Your task to perform on an android device: create a new album in the google photos Image 0: 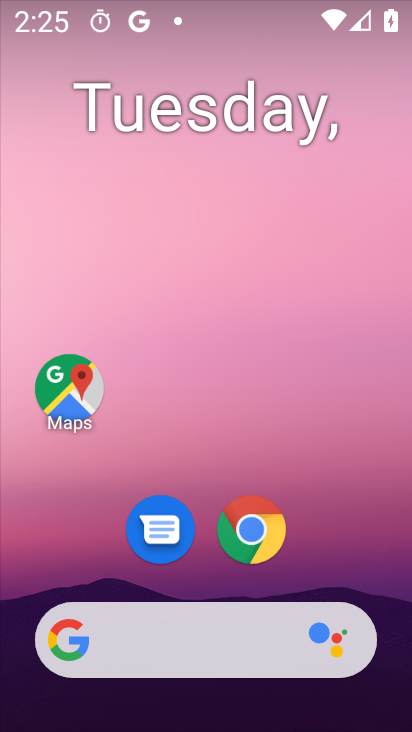
Step 0: click (373, 60)
Your task to perform on an android device: create a new album in the google photos Image 1: 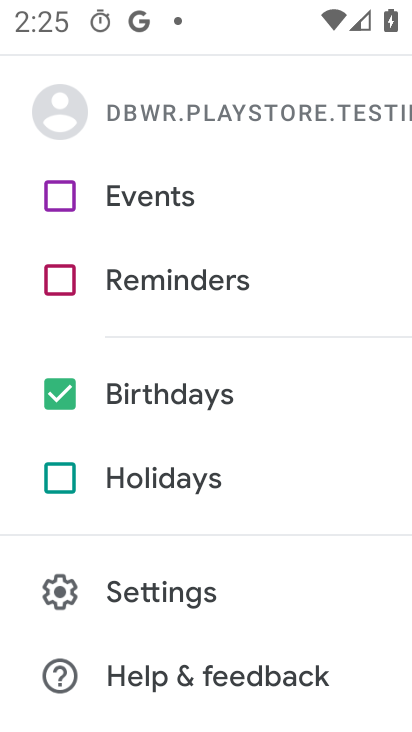
Step 1: press home button
Your task to perform on an android device: create a new album in the google photos Image 2: 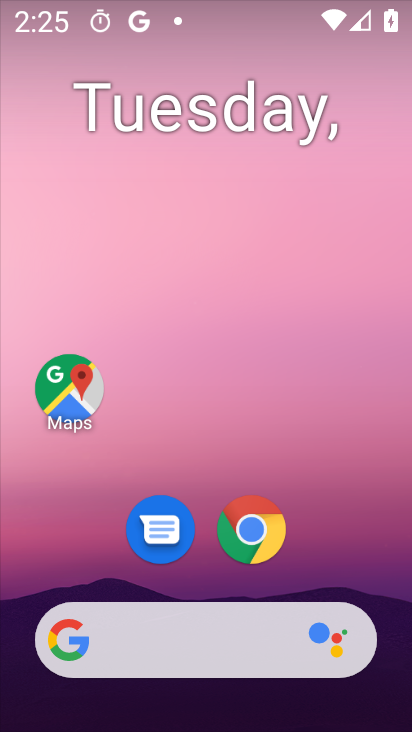
Step 2: drag from (372, 468) to (345, 202)
Your task to perform on an android device: create a new album in the google photos Image 3: 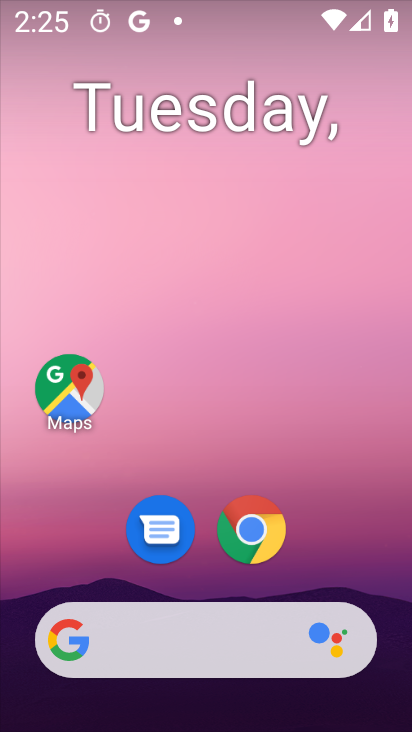
Step 3: drag from (386, 241) to (385, 85)
Your task to perform on an android device: create a new album in the google photos Image 4: 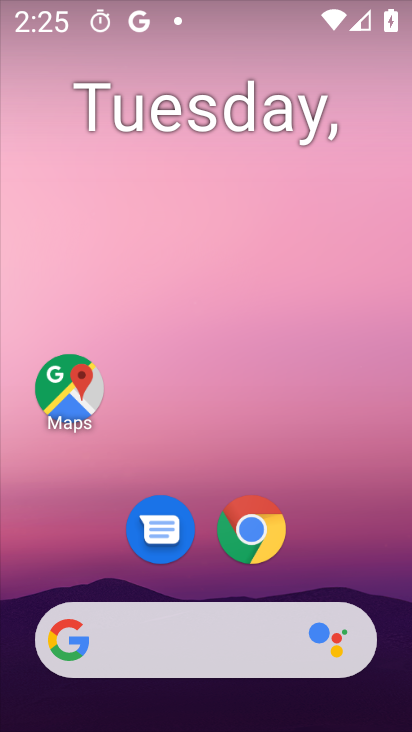
Step 4: drag from (374, 588) to (355, 115)
Your task to perform on an android device: create a new album in the google photos Image 5: 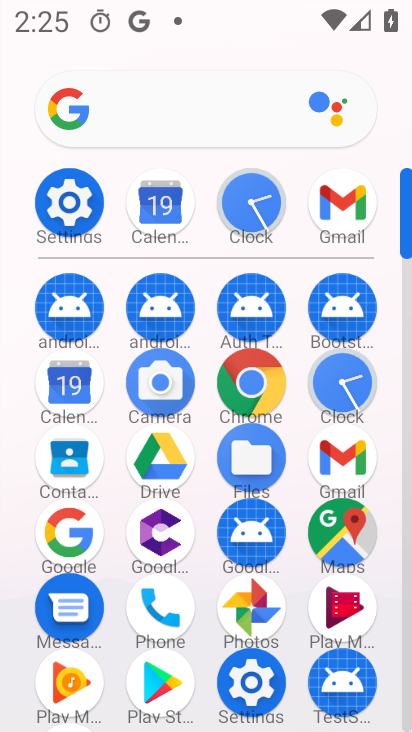
Step 5: click (239, 602)
Your task to perform on an android device: create a new album in the google photos Image 6: 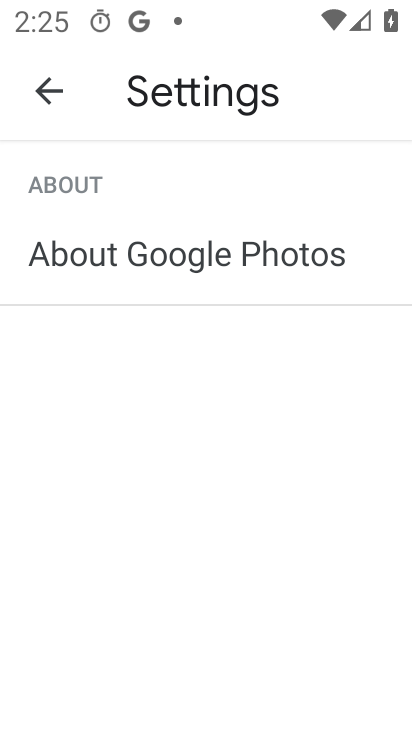
Step 6: press back button
Your task to perform on an android device: create a new album in the google photos Image 7: 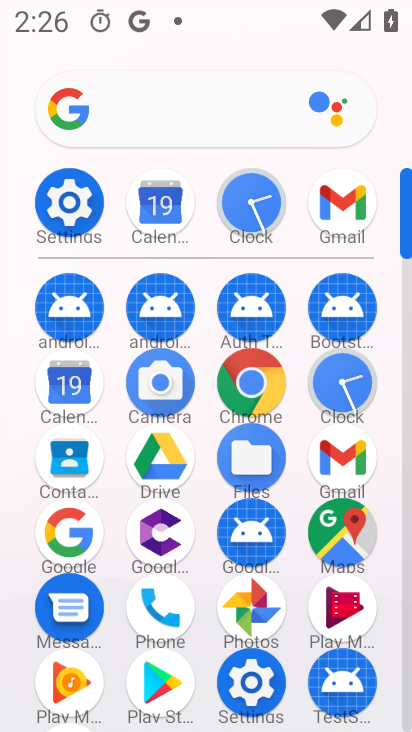
Step 7: click (258, 599)
Your task to perform on an android device: create a new album in the google photos Image 8: 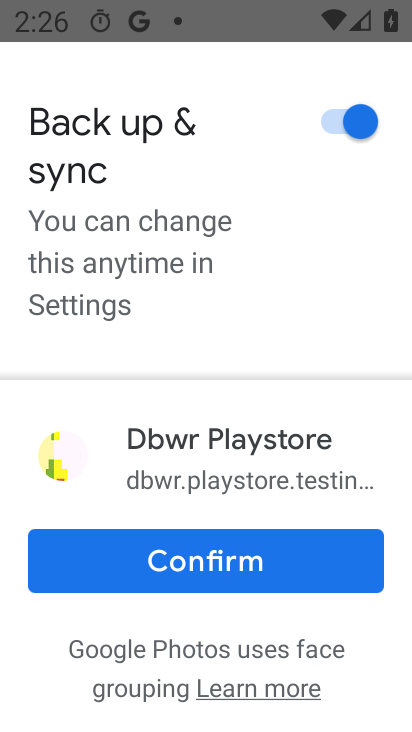
Step 8: click (138, 559)
Your task to perform on an android device: create a new album in the google photos Image 9: 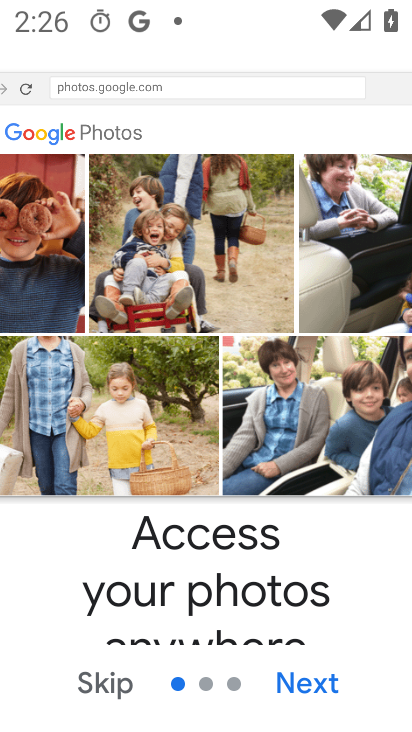
Step 9: click (287, 681)
Your task to perform on an android device: create a new album in the google photos Image 10: 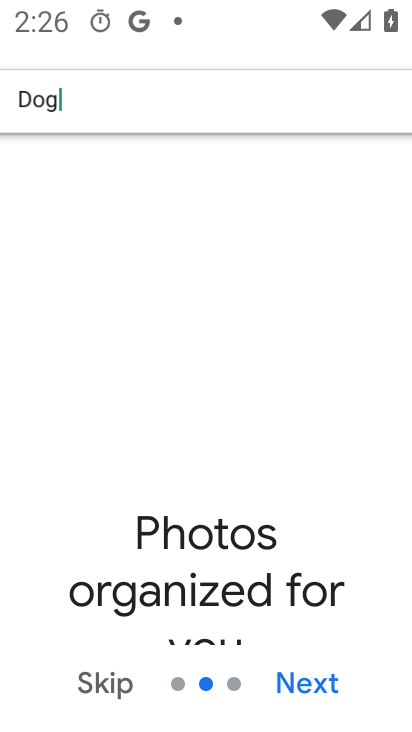
Step 10: click (289, 681)
Your task to perform on an android device: create a new album in the google photos Image 11: 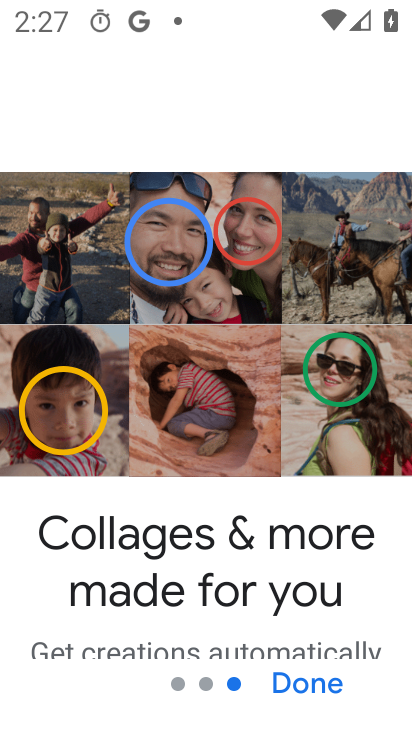
Step 11: click (289, 681)
Your task to perform on an android device: create a new album in the google photos Image 12: 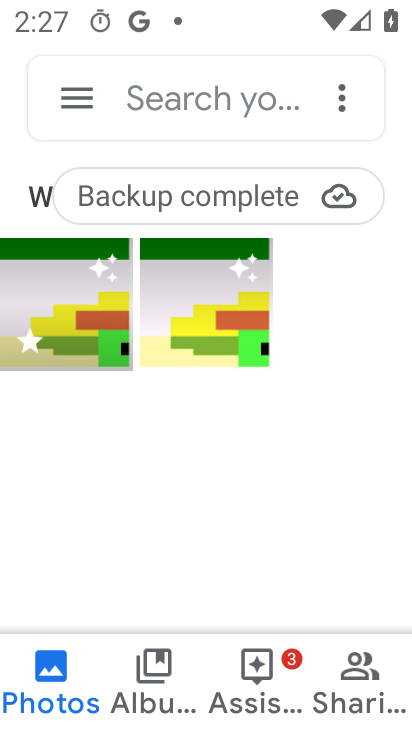
Step 12: click (48, 306)
Your task to perform on an android device: create a new album in the google photos Image 13: 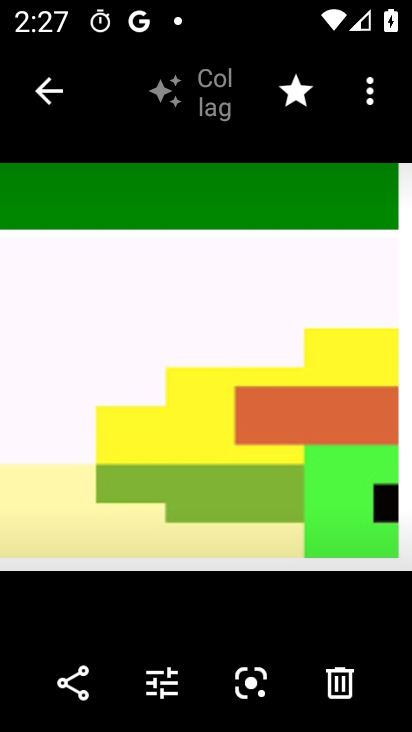
Step 13: click (39, 91)
Your task to perform on an android device: create a new album in the google photos Image 14: 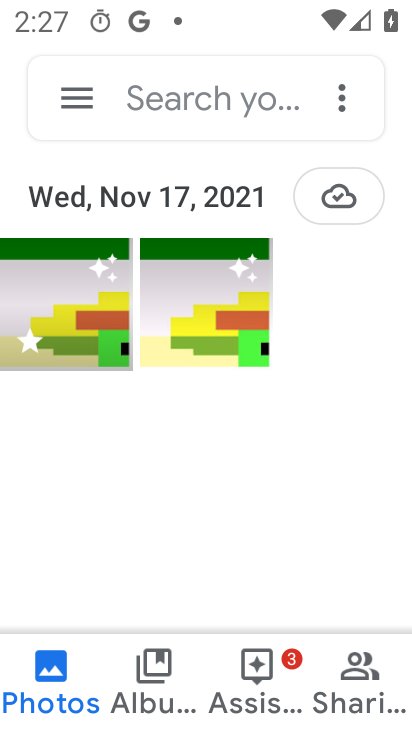
Step 14: click (206, 303)
Your task to perform on an android device: create a new album in the google photos Image 15: 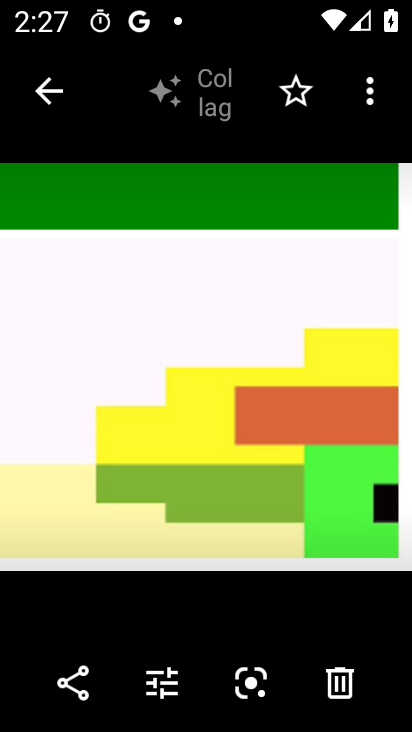
Step 15: click (43, 88)
Your task to perform on an android device: create a new album in the google photos Image 16: 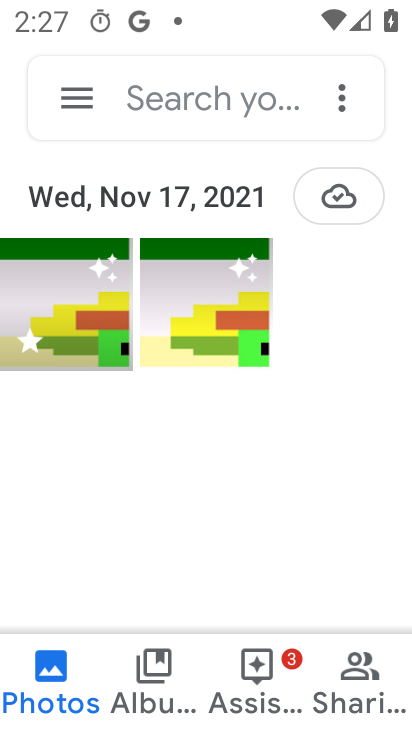
Step 16: click (340, 92)
Your task to perform on an android device: create a new album in the google photos Image 17: 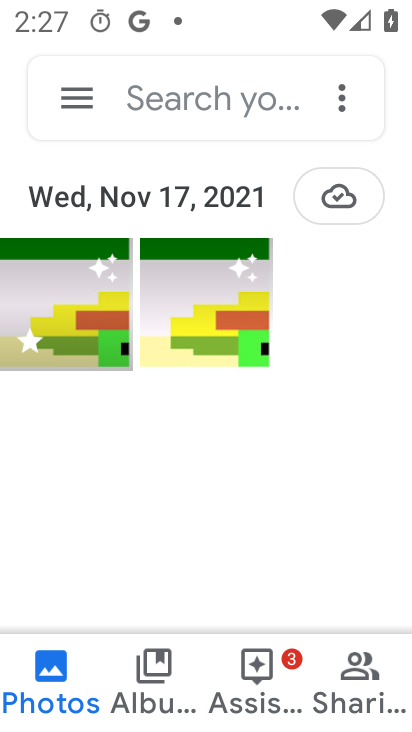
Step 17: click (319, 152)
Your task to perform on an android device: create a new album in the google photos Image 18: 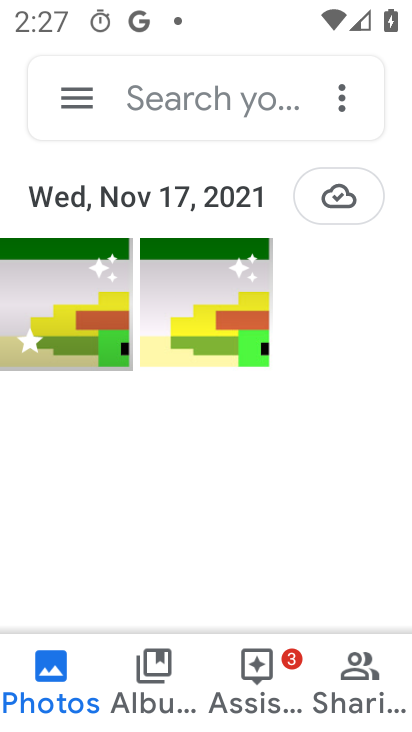
Step 18: click (341, 93)
Your task to perform on an android device: create a new album in the google photos Image 19: 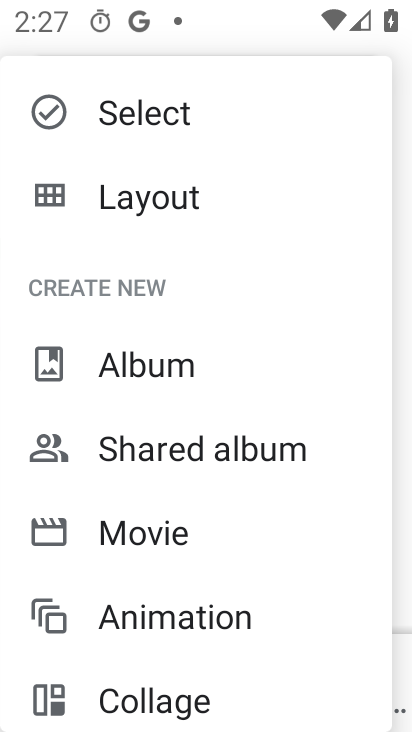
Step 19: drag from (308, 652) to (259, 428)
Your task to perform on an android device: create a new album in the google photos Image 20: 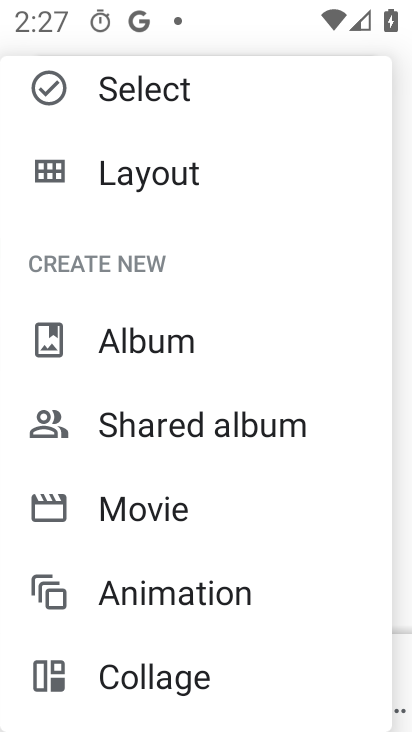
Step 20: click (107, 338)
Your task to perform on an android device: create a new album in the google photos Image 21: 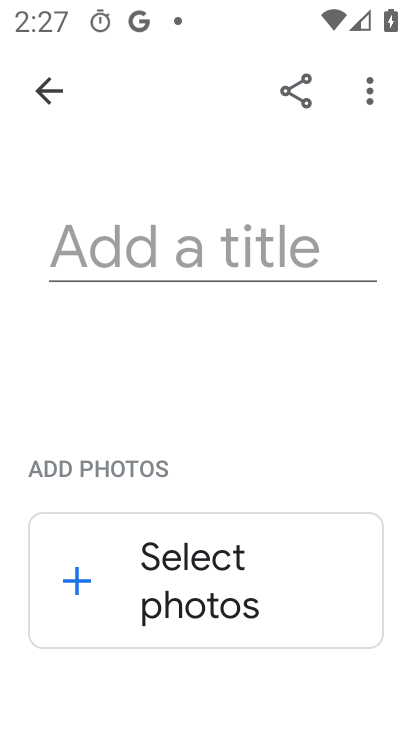
Step 21: click (179, 248)
Your task to perform on an android device: create a new album in the google photos Image 22: 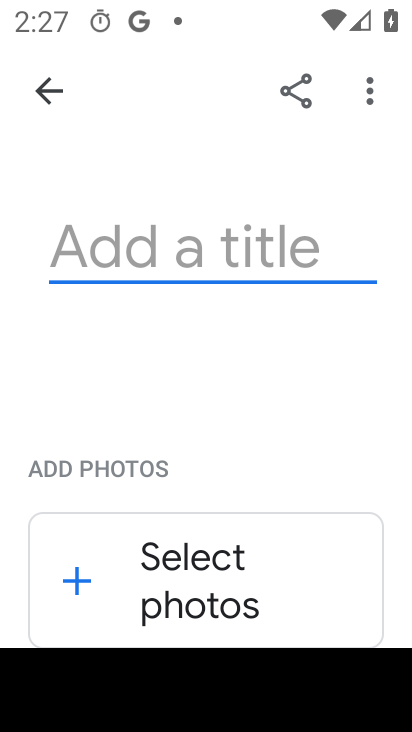
Step 22: type "jjfjhhhj"
Your task to perform on an android device: create a new album in the google photos Image 23: 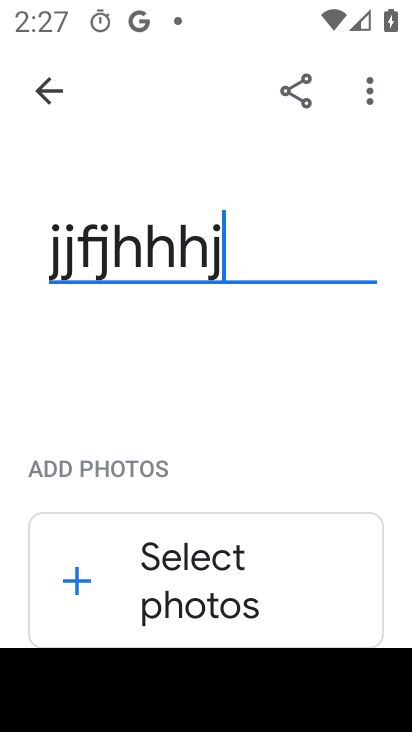
Step 23: click (240, 581)
Your task to perform on an android device: create a new album in the google photos Image 24: 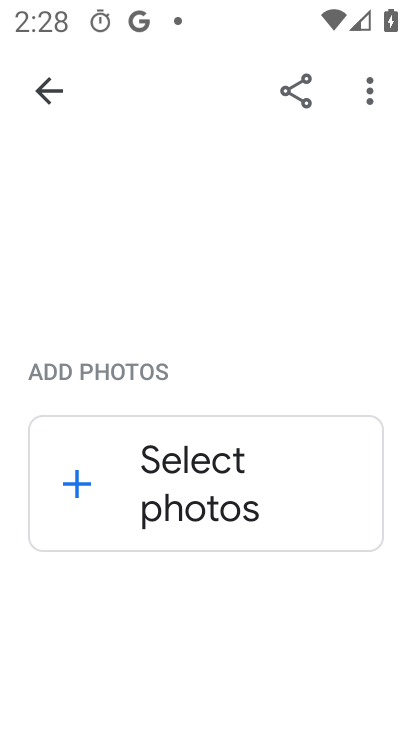
Step 24: click (216, 484)
Your task to perform on an android device: create a new album in the google photos Image 25: 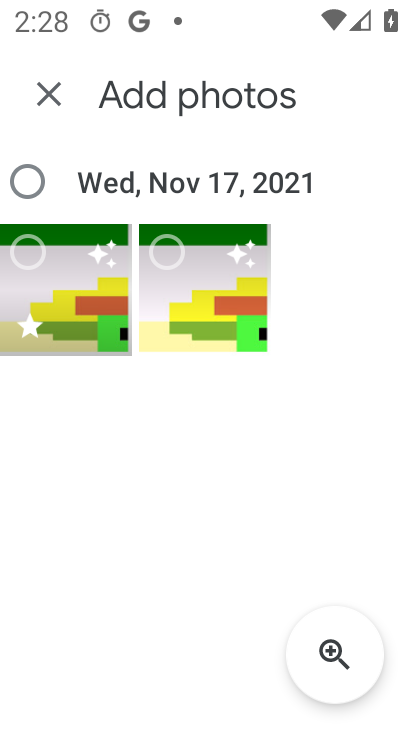
Step 25: click (40, 245)
Your task to perform on an android device: create a new album in the google photos Image 26: 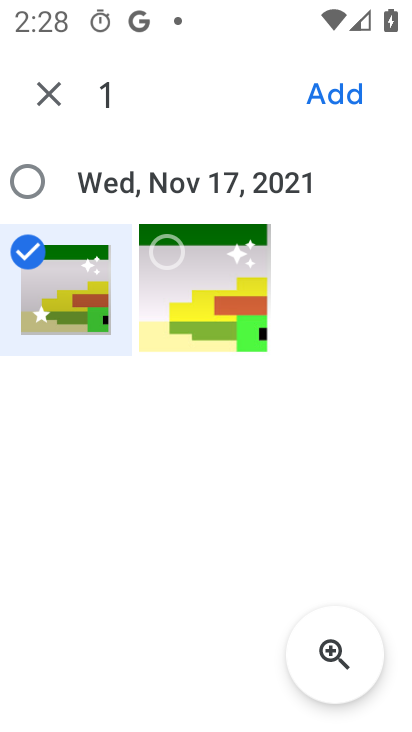
Step 26: click (165, 257)
Your task to perform on an android device: create a new album in the google photos Image 27: 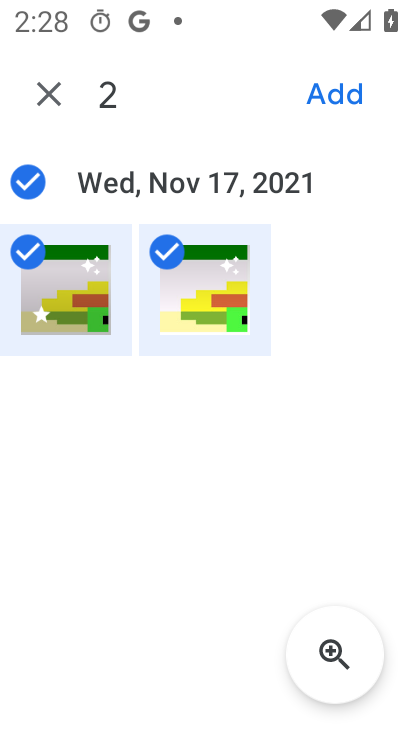
Step 27: click (331, 94)
Your task to perform on an android device: create a new album in the google photos Image 28: 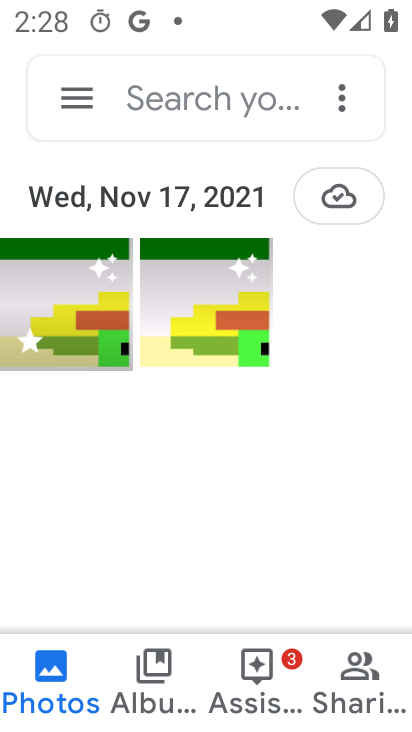
Step 28: task complete